Your task to perform on an android device: install app "LiveIn - Share Your Moment" Image 0: 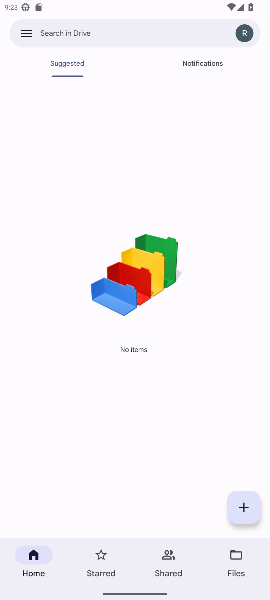
Step 0: press home button
Your task to perform on an android device: install app "LiveIn - Share Your Moment" Image 1: 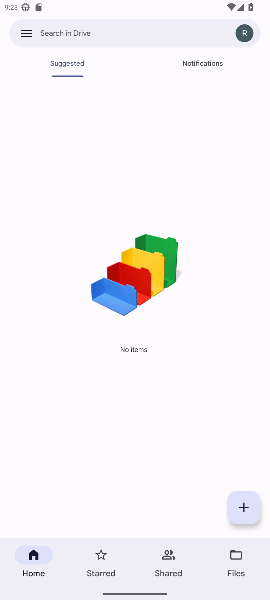
Step 1: press home button
Your task to perform on an android device: install app "LiveIn - Share Your Moment" Image 2: 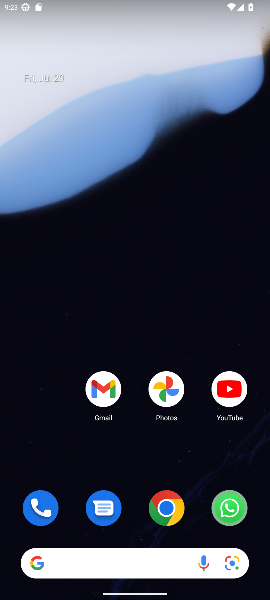
Step 2: drag from (189, 558) to (185, 31)
Your task to perform on an android device: install app "LiveIn - Share Your Moment" Image 3: 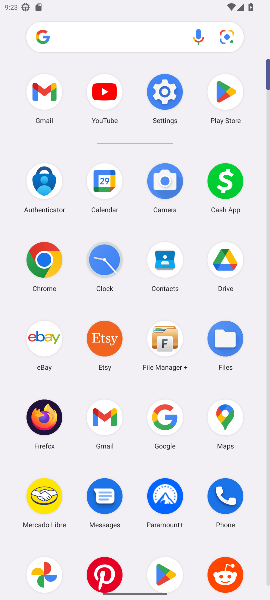
Step 3: click (233, 82)
Your task to perform on an android device: install app "LiveIn - Share Your Moment" Image 4: 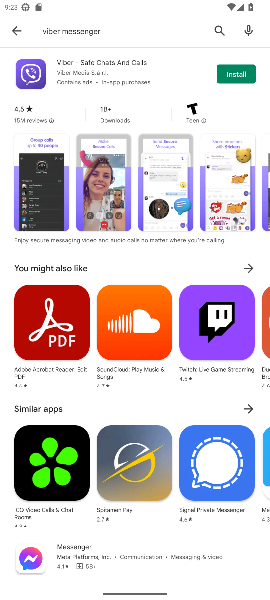
Step 4: click (223, 24)
Your task to perform on an android device: install app "LiveIn - Share Your Moment" Image 5: 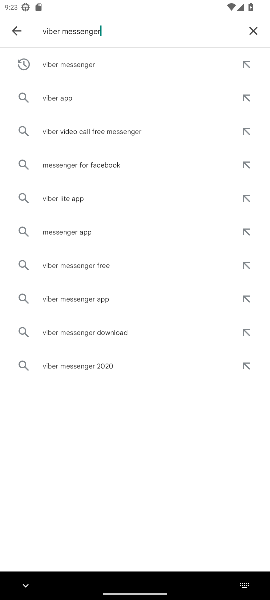
Step 5: click (248, 30)
Your task to perform on an android device: install app "LiveIn - Share Your Moment" Image 6: 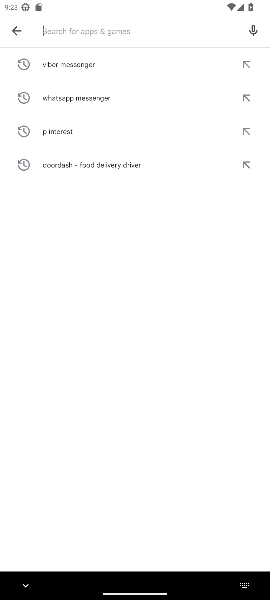
Step 6: type "livein - share your moment"
Your task to perform on an android device: install app "LiveIn - Share Your Moment" Image 7: 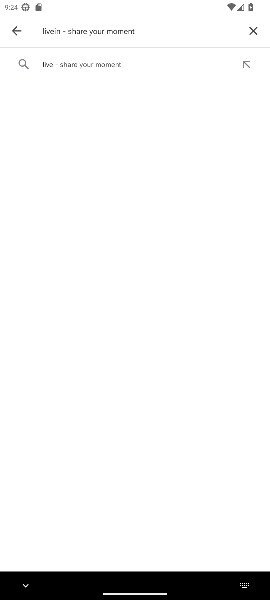
Step 7: click (150, 66)
Your task to perform on an android device: install app "LiveIn - Share Your Moment" Image 8: 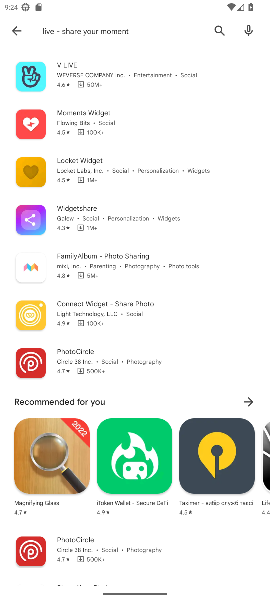
Step 8: click (161, 82)
Your task to perform on an android device: install app "LiveIn - Share Your Moment" Image 9: 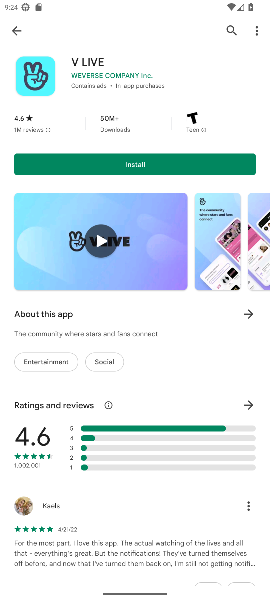
Step 9: task complete